Your task to perform on an android device: Open the stopwatch Image 0: 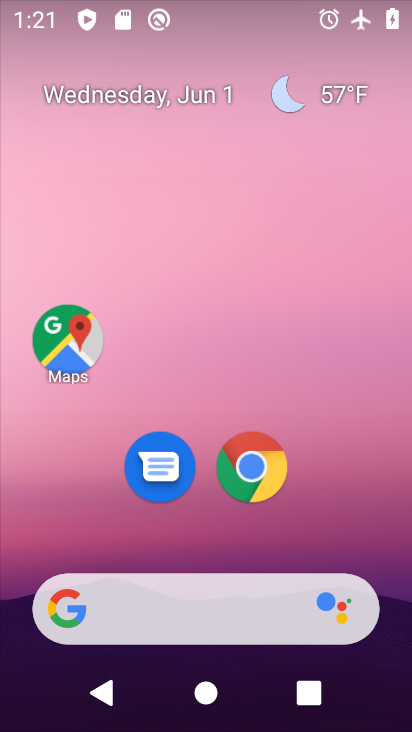
Step 0: drag from (378, 528) to (363, 154)
Your task to perform on an android device: Open the stopwatch Image 1: 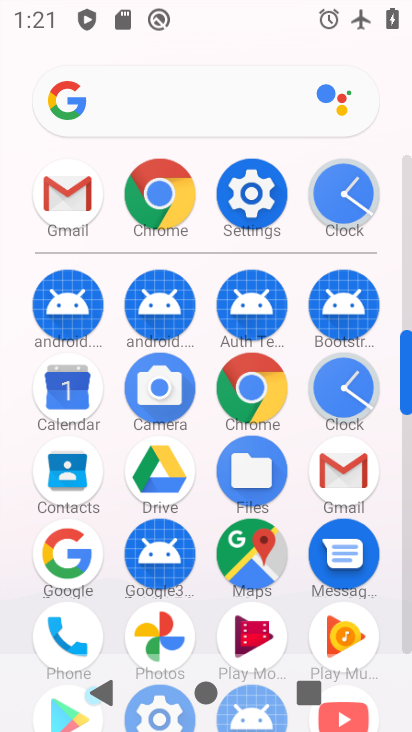
Step 1: click (354, 413)
Your task to perform on an android device: Open the stopwatch Image 2: 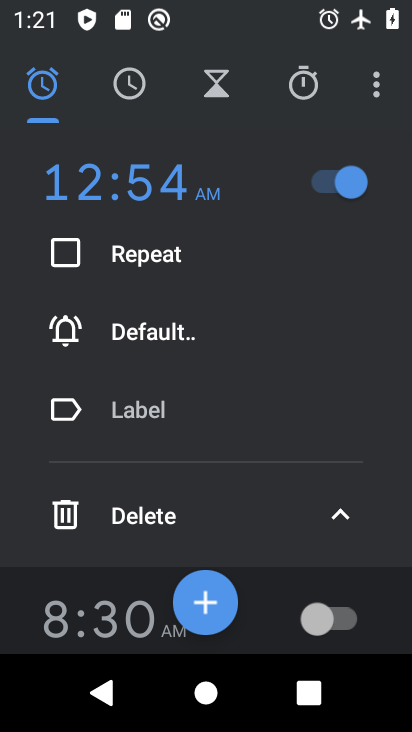
Step 2: click (306, 102)
Your task to perform on an android device: Open the stopwatch Image 3: 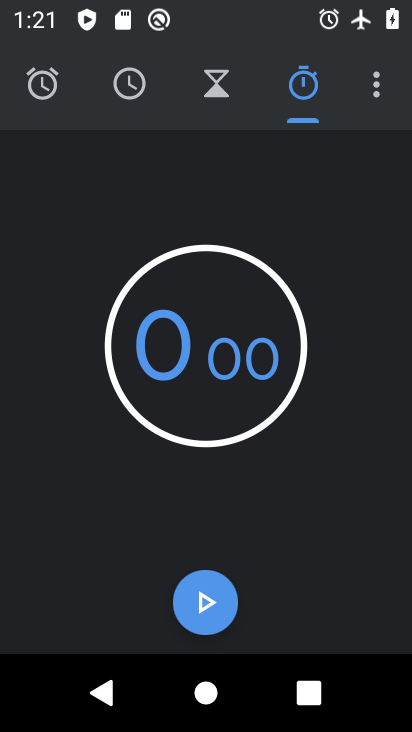
Step 3: task complete